Your task to perform on an android device: Open Yahoo.com Image 0: 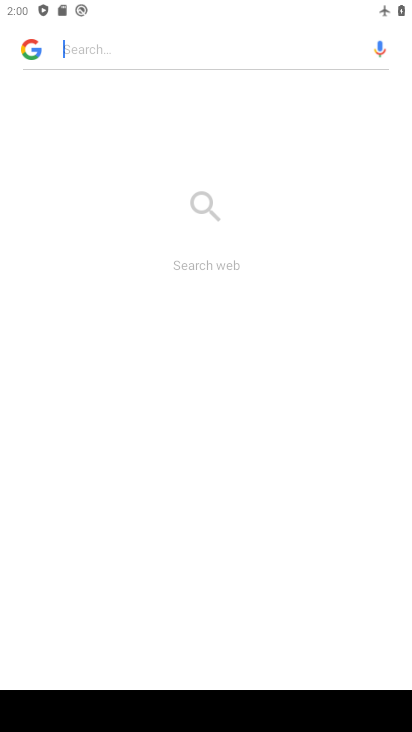
Step 0: press back button
Your task to perform on an android device: Open Yahoo.com Image 1: 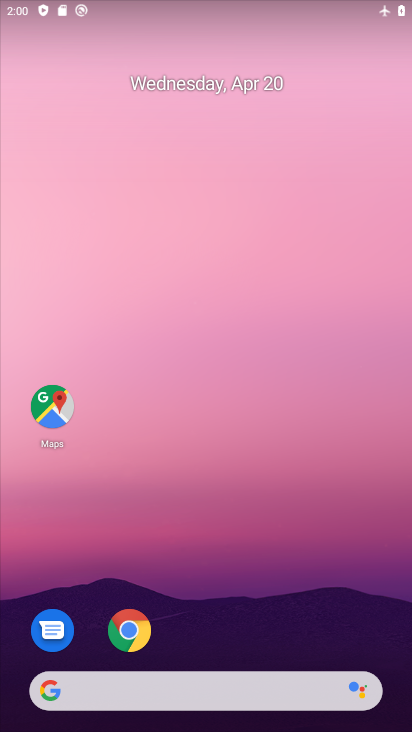
Step 1: drag from (327, 606) to (252, 249)
Your task to perform on an android device: Open Yahoo.com Image 2: 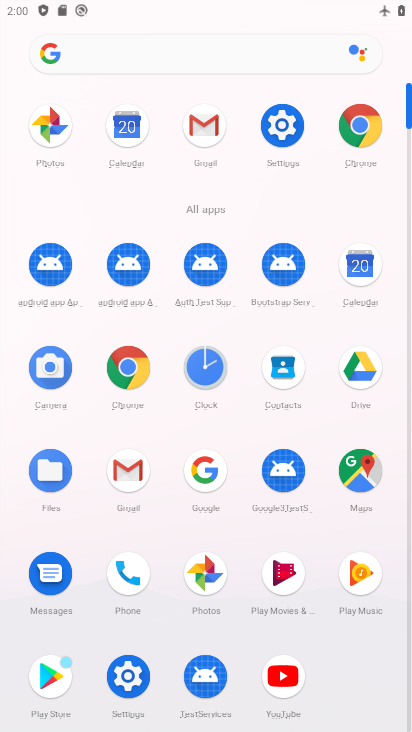
Step 2: click (348, 119)
Your task to perform on an android device: Open Yahoo.com Image 3: 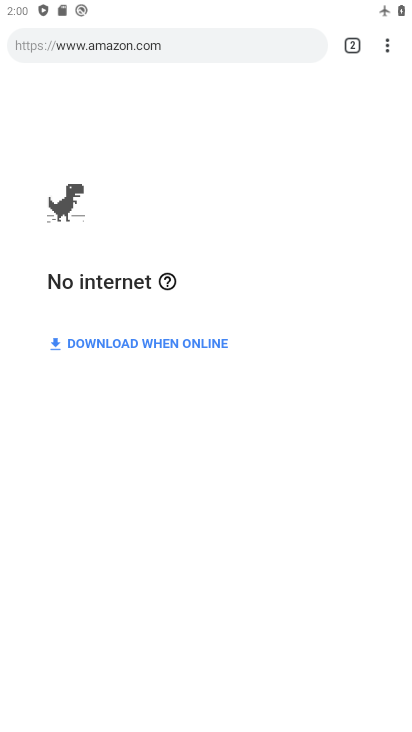
Step 3: task complete